Your task to perform on an android device: check android version Image 0: 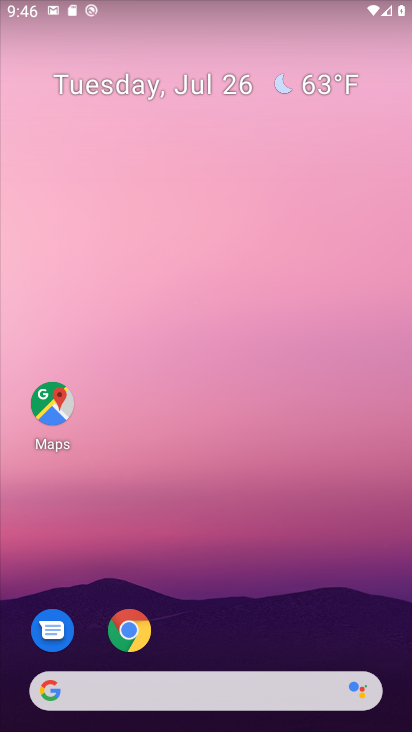
Step 0: press home button
Your task to perform on an android device: check android version Image 1: 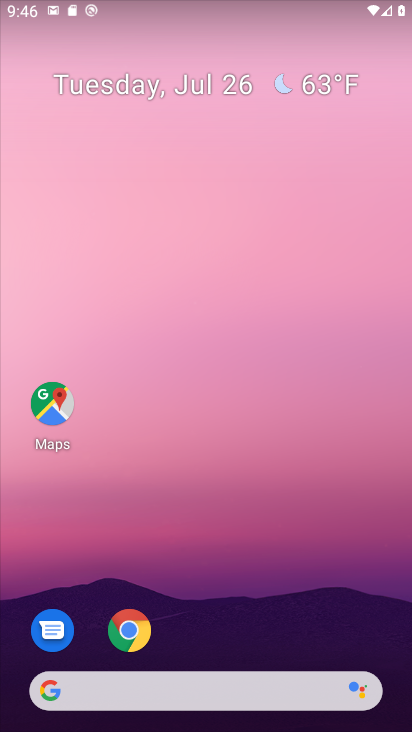
Step 1: drag from (209, 643) to (230, 49)
Your task to perform on an android device: check android version Image 2: 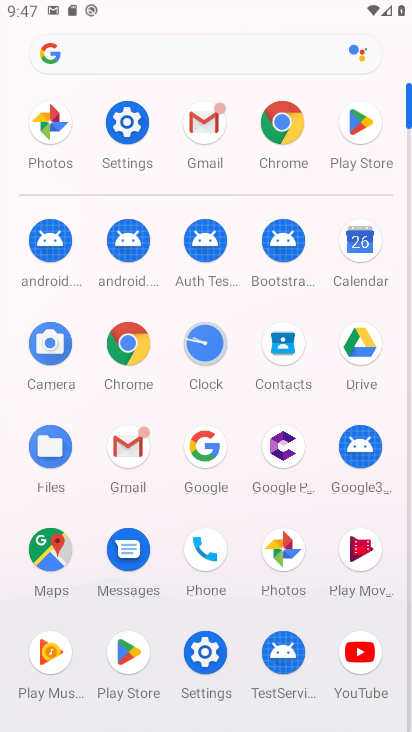
Step 2: click (124, 115)
Your task to perform on an android device: check android version Image 3: 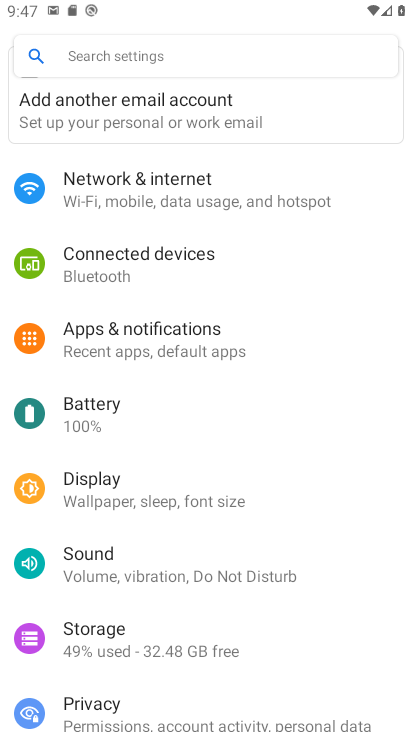
Step 3: drag from (197, 701) to (218, 111)
Your task to perform on an android device: check android version Image 4: 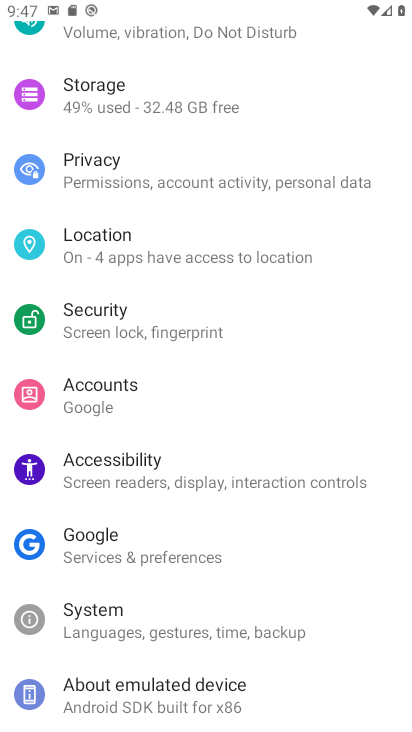
Step 4: click (254, 695)
Your task to perform on an android device: check android version Image 5: 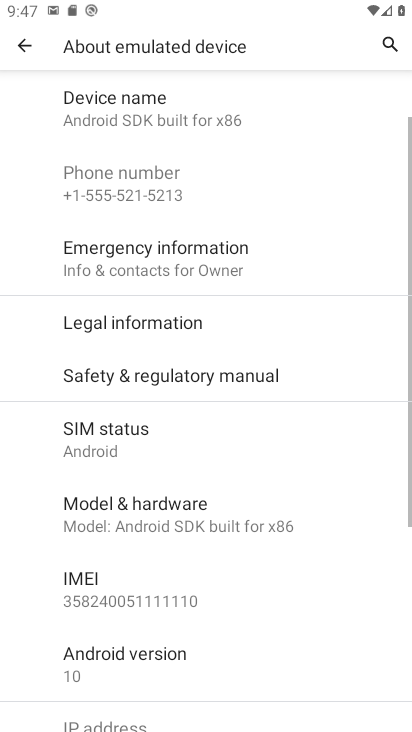
Step 5: click (97, 667)
Your task to perform on an android device: check android version Image 6: 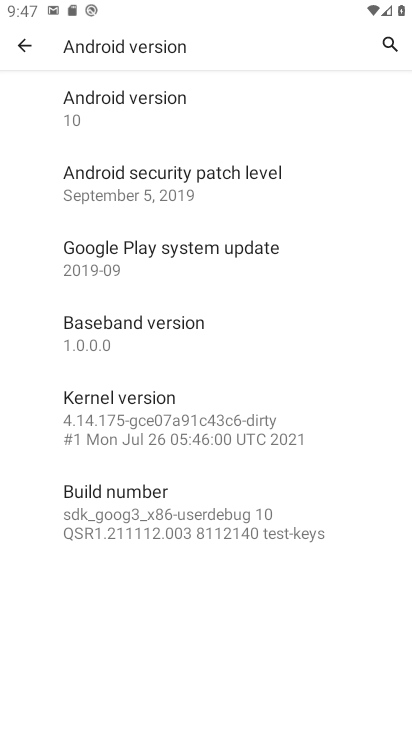
Step 6: task complete